Your task to perform on an android device: add a contact in the contacts app Image 0: 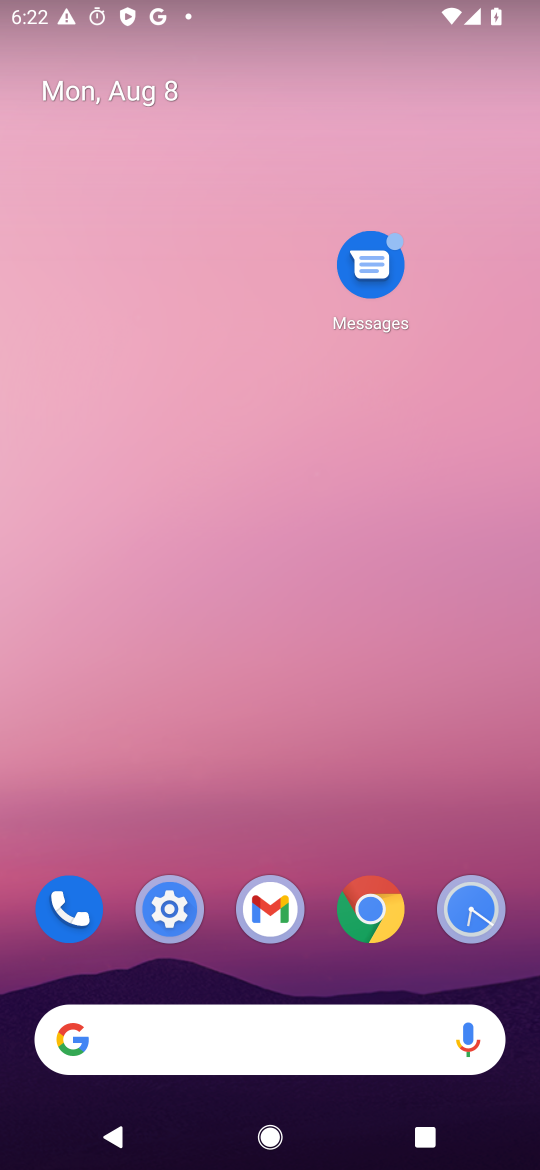
Step 0: drag from (196, 1053) to (426, 131)
Your task to perform on an android device: add a contact in the contacts app Image 1: 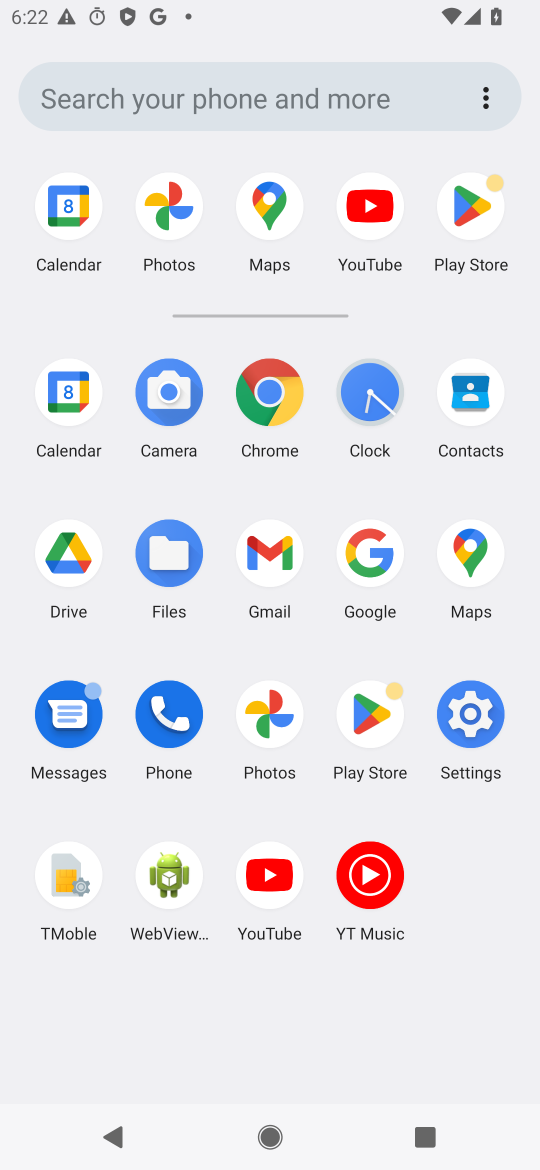
Step 1: click (472, 389)
Your task to perform on an android device: add a contact in the contacts app Image 2: 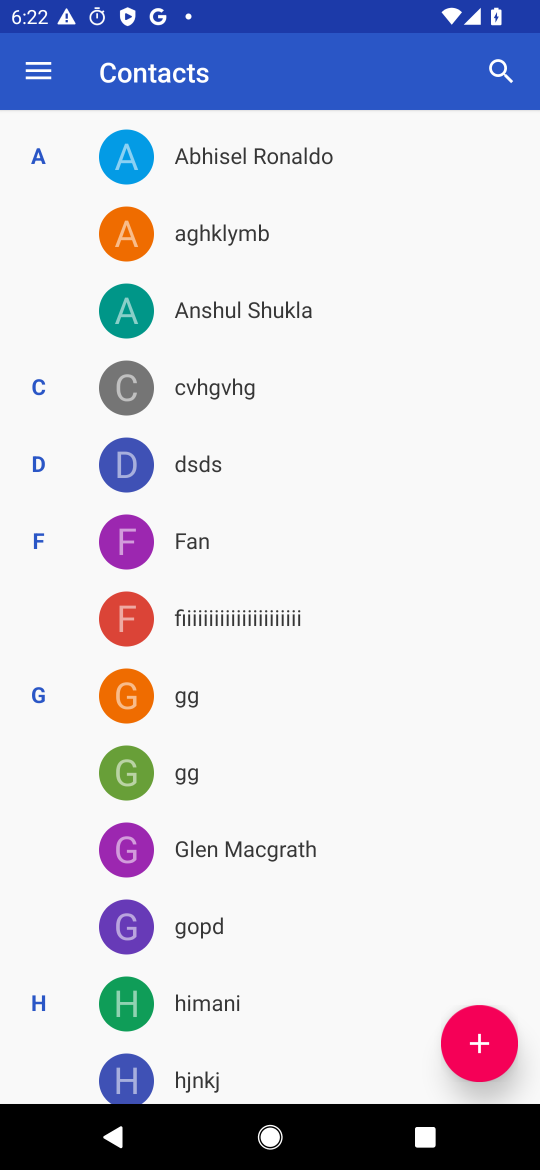
Step 2: click (481, 1047)
Your task to perform on an android device: add a contact in the contacts app Image 3: 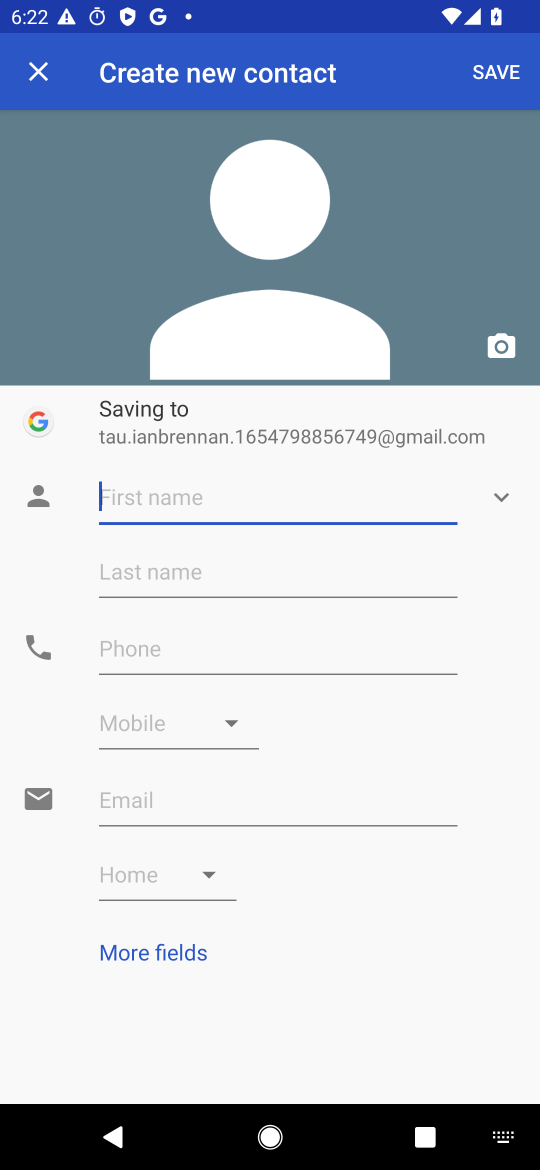
Step 3: type "byyttrdff"
Your task to perform on an android device: add a contact in the contacts app Image 4: 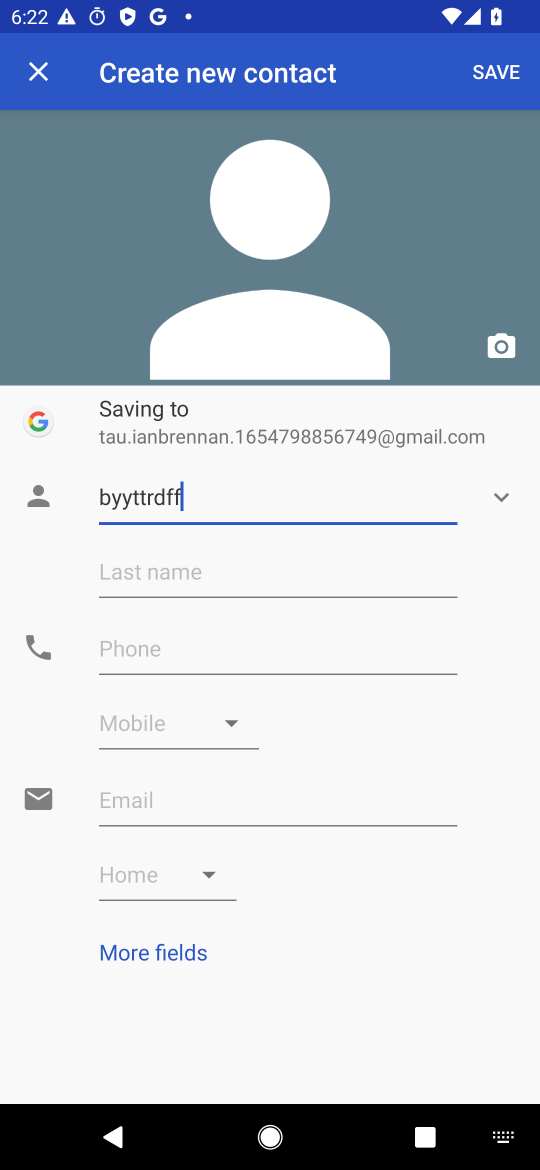
Step 4: click (126, 634)
Your task to perform on an android device: add a contact in the contacts app Image 5: 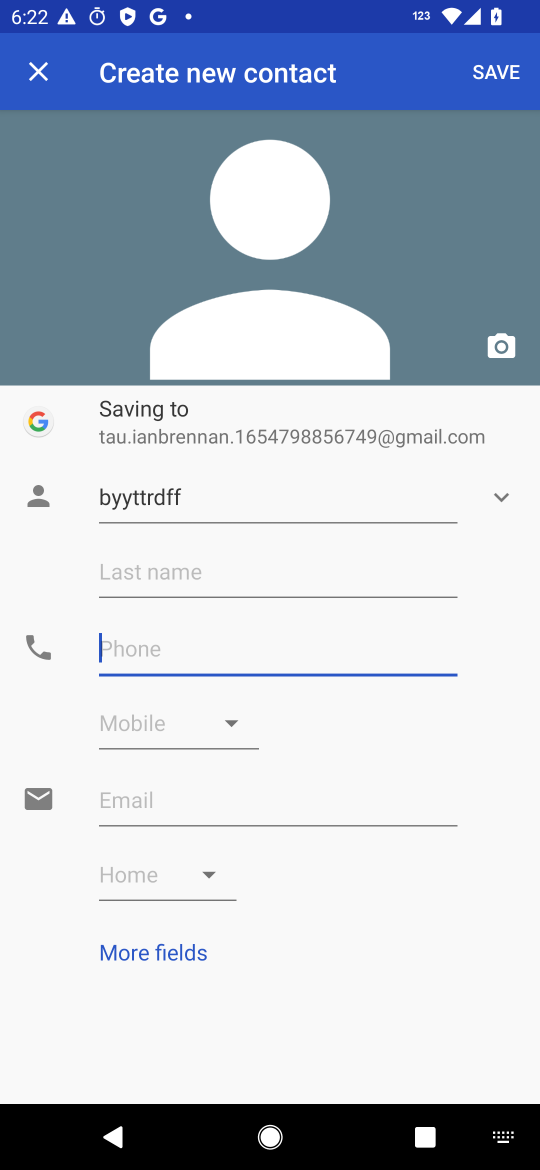
Step 5: type "8734566"
Your task to perform on an android device: add a contact in the contacts app Image 6: 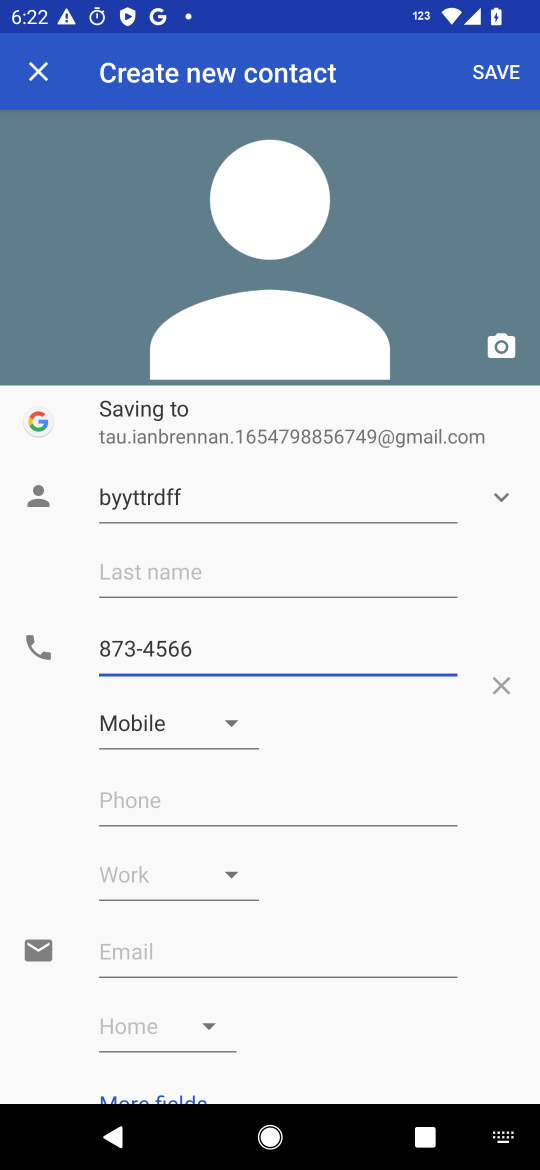
Step 6: click (494, 69)
Your task to perform on an android device: add a contact in the contacts app Image 7: 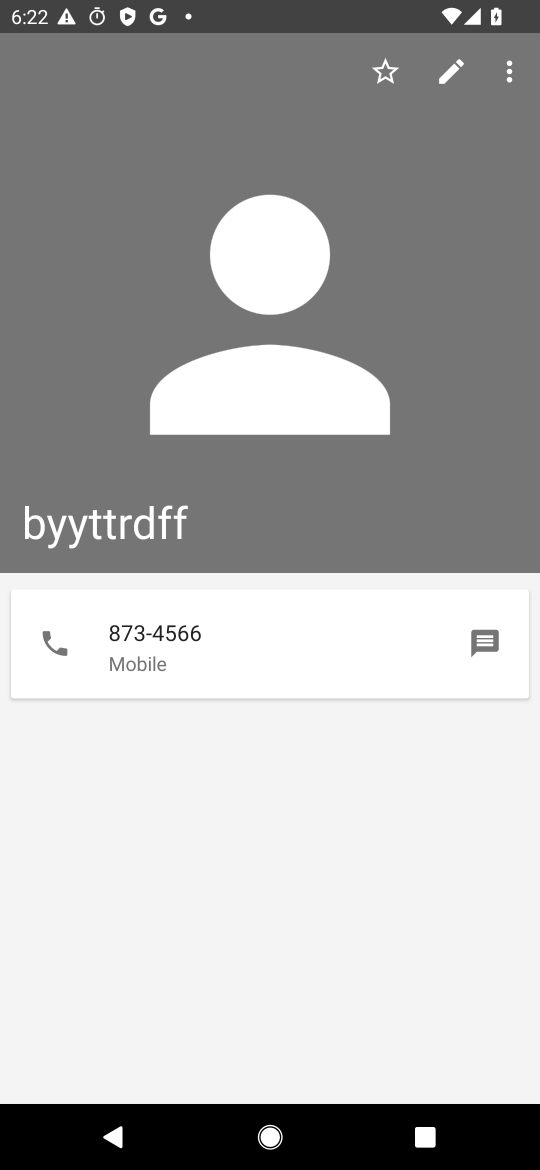
Step 7: task complete